Your task to perform on an android device: Open Reddit.com Image 0: 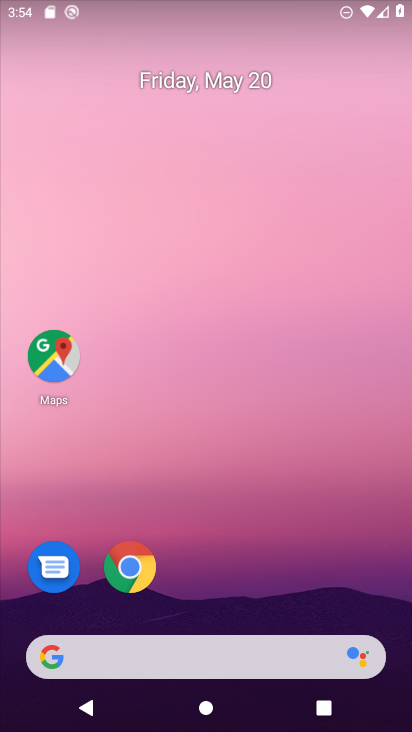
Step 0: click (139, 565)
Your task to perform on an android device: Open Reddit.com Image 1: 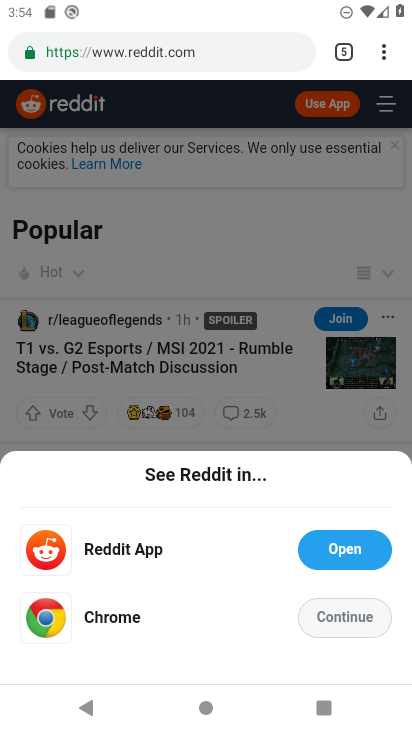
Step 1: task complete